Your task to perform on an android device: Is it going to rain today? Image 0: 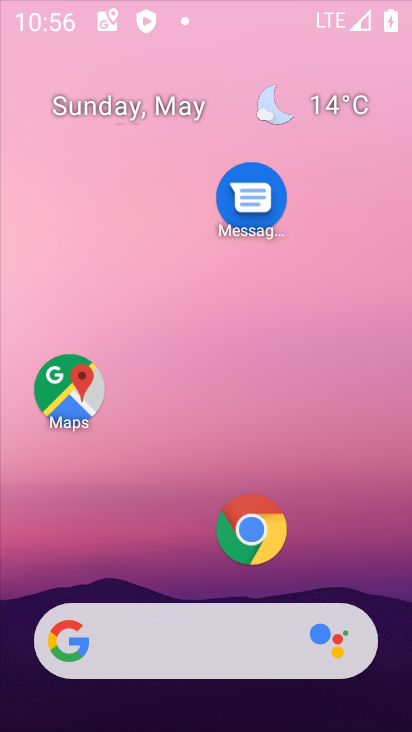
Step 0: click (359, 181)
Your task to perform on an android device: Is it going to rain today? Image 1: 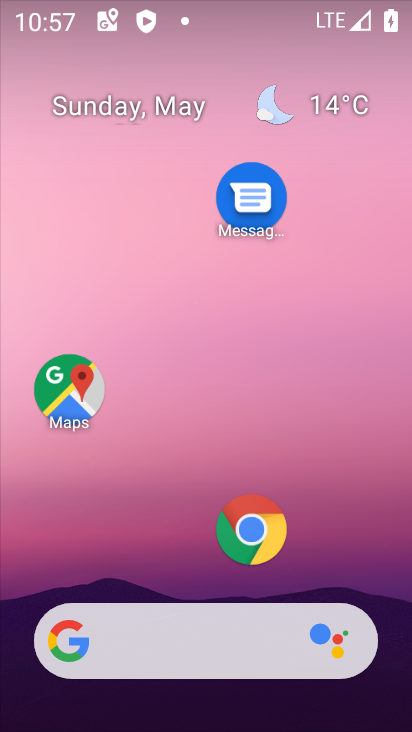
Step 1: click (333, 128)
Your task to perform on an android device: Is it going to rain today? Image 2: 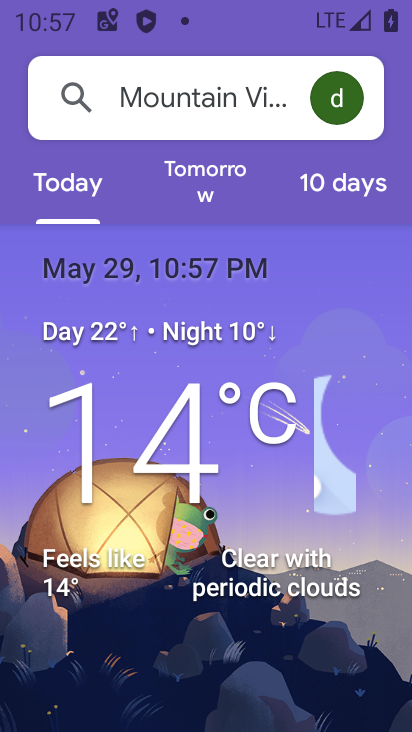
Step 2: task complete